Your task to perform on an android device: snooze an email in the gmail app Image 0: 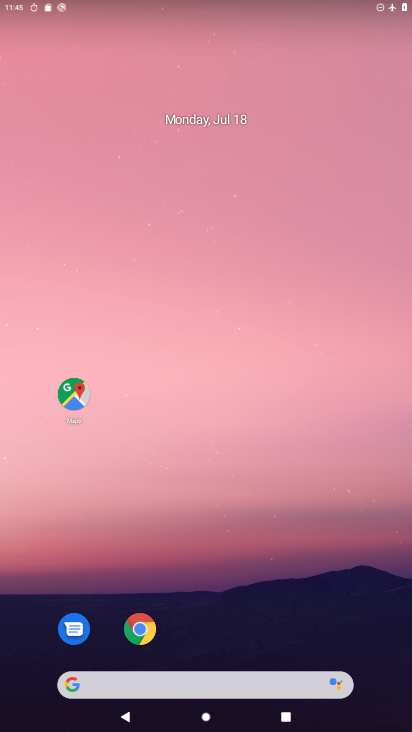
Step 0: drag from (352, 495) to (299, 84)
Your task to perform on an android device: snooze an email in the gmail app Image 1: 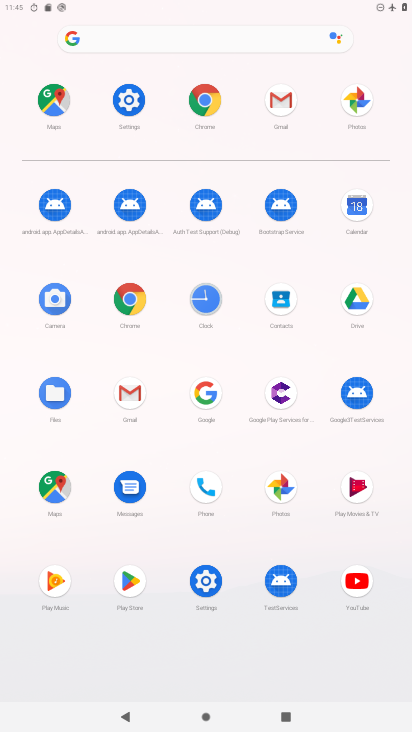
Step 1: click (275, 97)
Your task to perform on an android device: snooze an email in the gmail app Image 2: 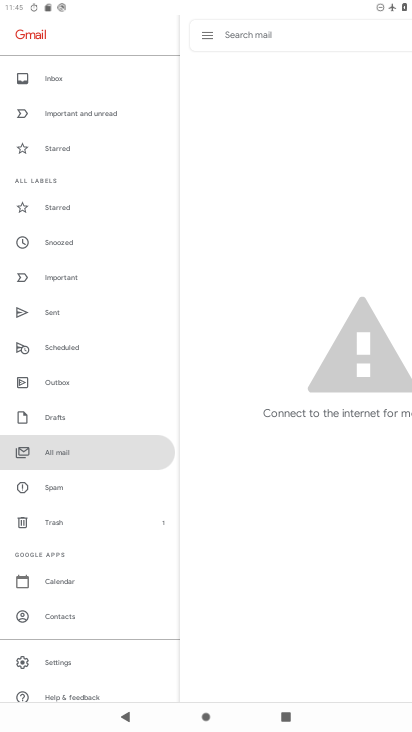
Step 2: click (56, 452)
Your task to perform on an android device: snooze an email in the gmail app Image 3: 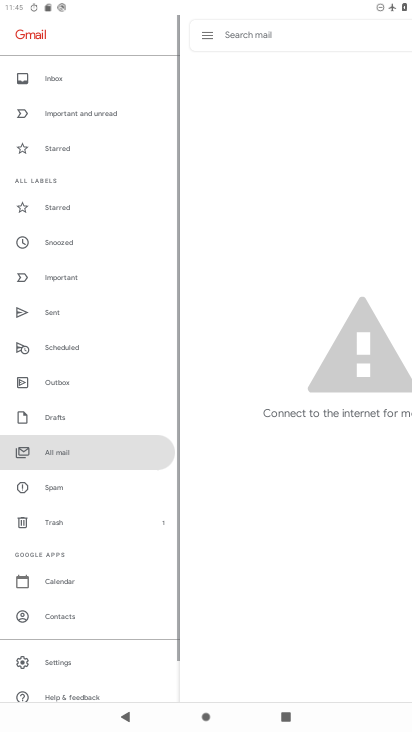
Step 3: task complete